Your task to perform on an android device: Go to Google Image 0: 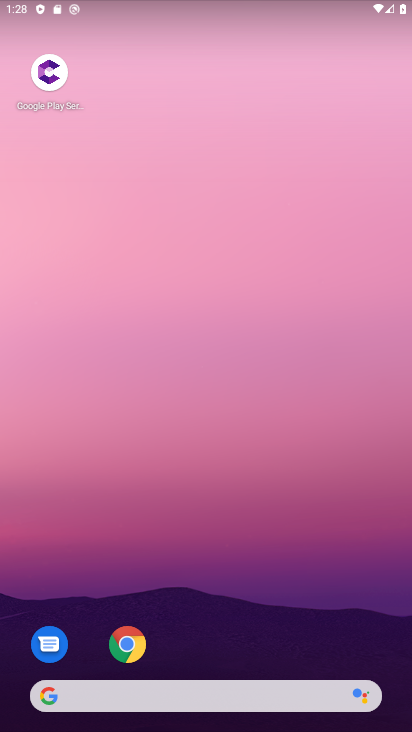
Step 0: press home button
Your task to perform on an android device: Go to Google Image 1: 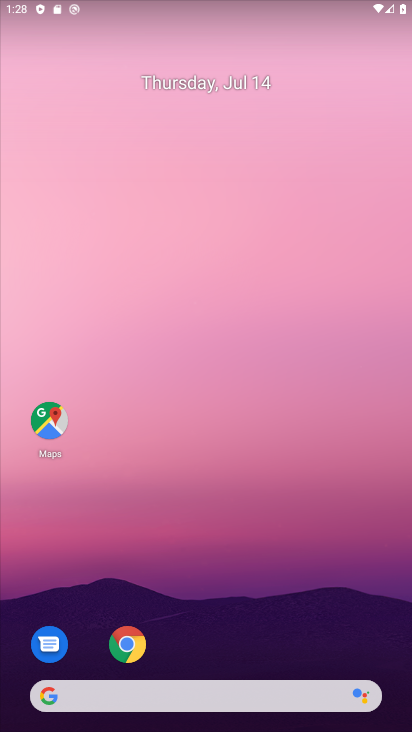
Step 1: drag from (264, 647) to (183, 100)
Your task to perform on an android device: Go to Google Image 2: 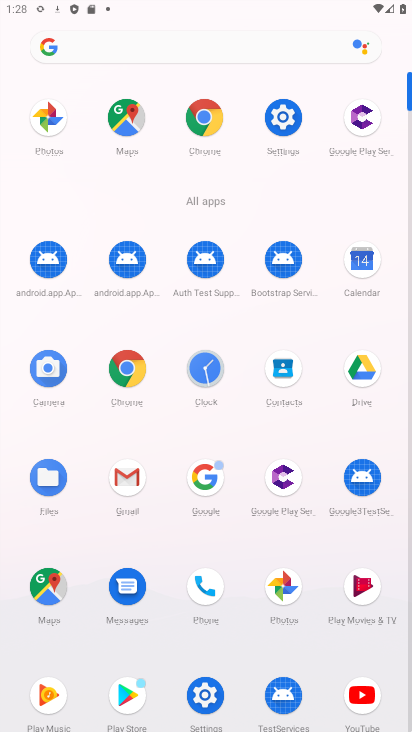
Step 2: click (197, 114)
Your task to perform on an android device: Go to Google Image 3: 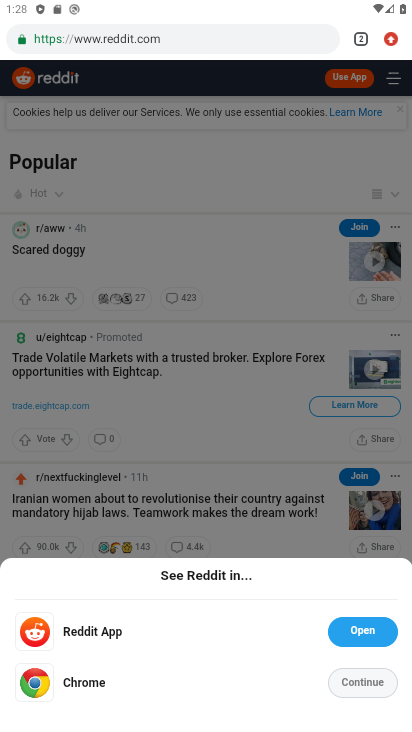
Step 3: click (234, 43)
Your task to perform on an android device: Go to Google Image 4: 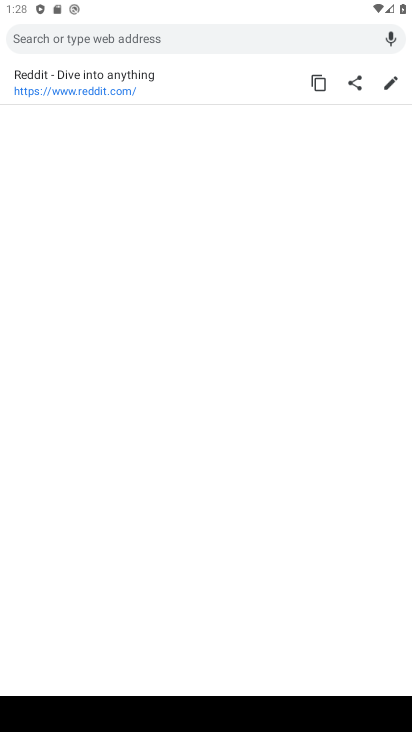
Step 4: type "google"
Your task to perform on an android device: Go to Google Image 5: 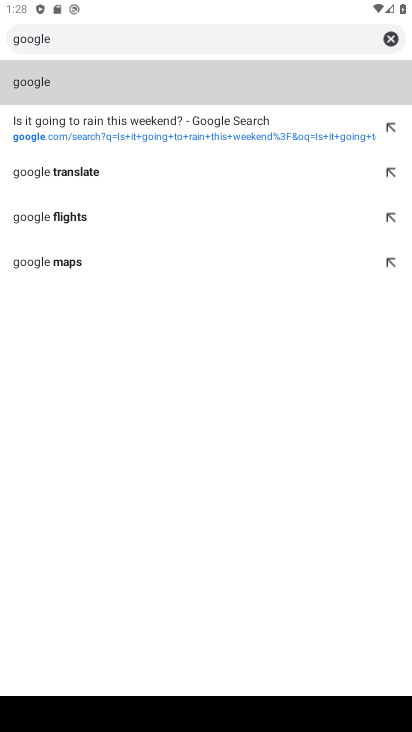
Step 5: click (124, 86)
Your task to perform on an android device: Go to Google Image 6: 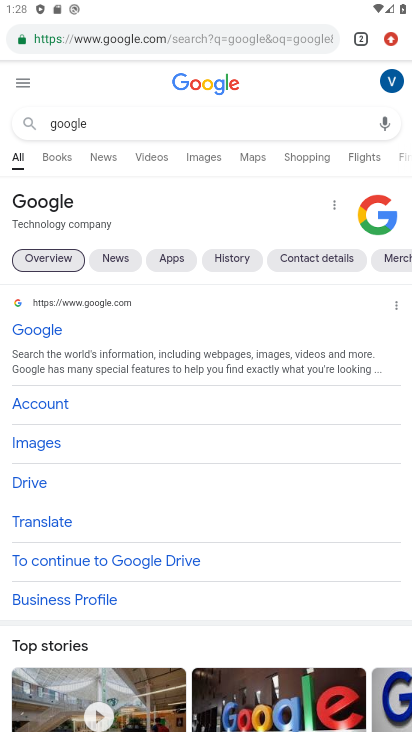
Step 6: task complete